Your task to perform on an android device: Search for Mexican restaurants on Maps Image 0: 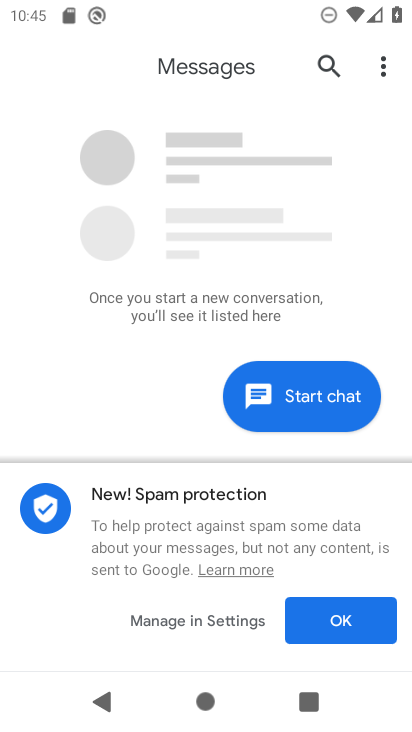
Step 0: press home button
Your task to perform on an android device: Search for Mexican restaurants on Maps Image 1: 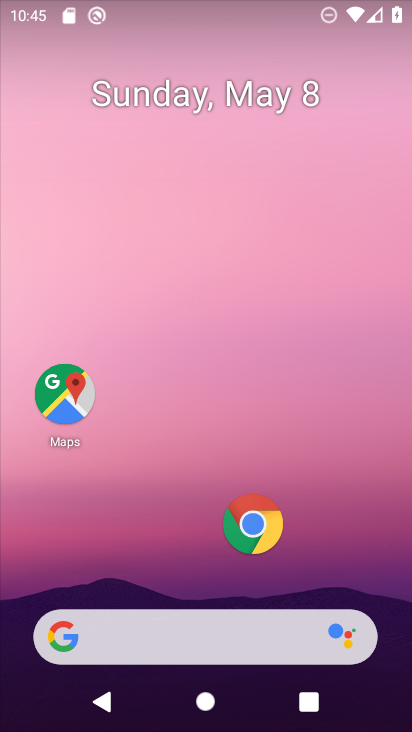
Step 1: click (65, 392)
Your task to perform on an android device: Search for Mexican restaurants on Maps Image 2: 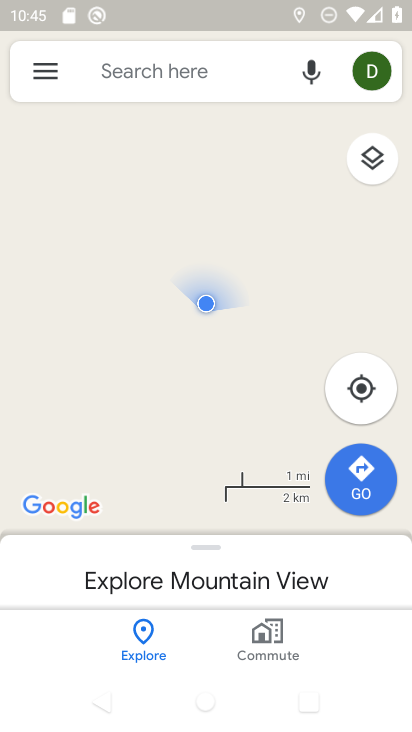
Step 2: click (159, 69)
Your task to perform on an android device: Search for Mexican restaurants on Maps Image 3: 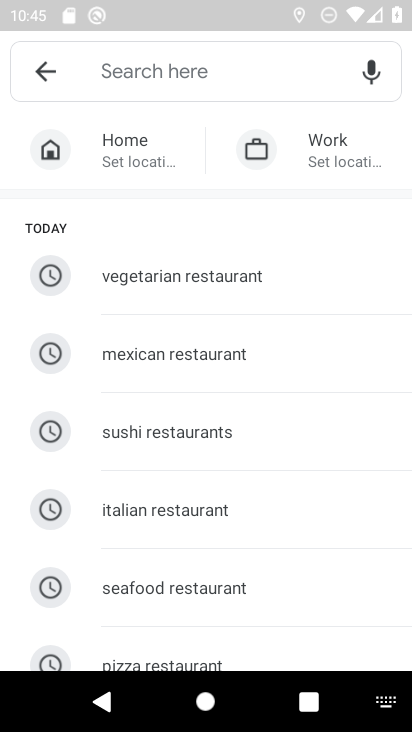
Step 3: click (193, 346)
Your task to perform on an android device: Search for Mexican restaurants on Maps Image 4: 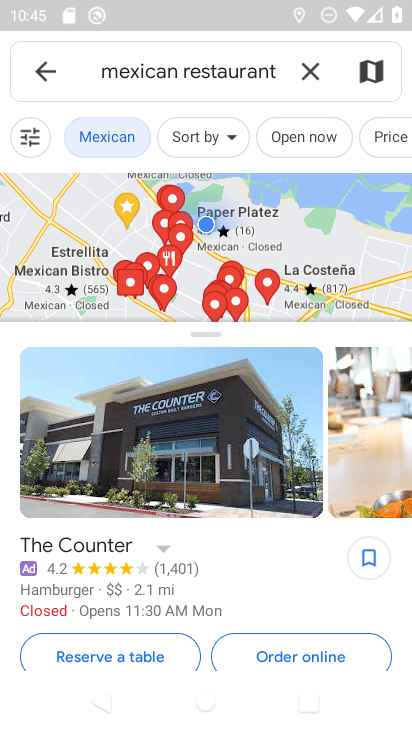
Step 4: task complete